Your task to perform on an android device: Check the news Image 0: 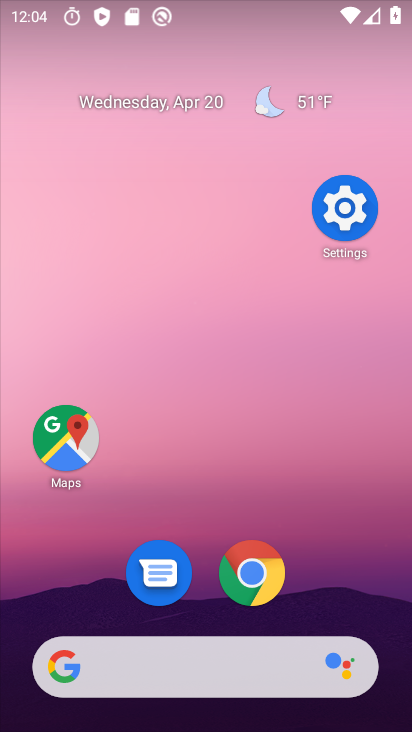
Step 0: click (259, 570)
Your task to perform on an android device: Check the news Image 1: 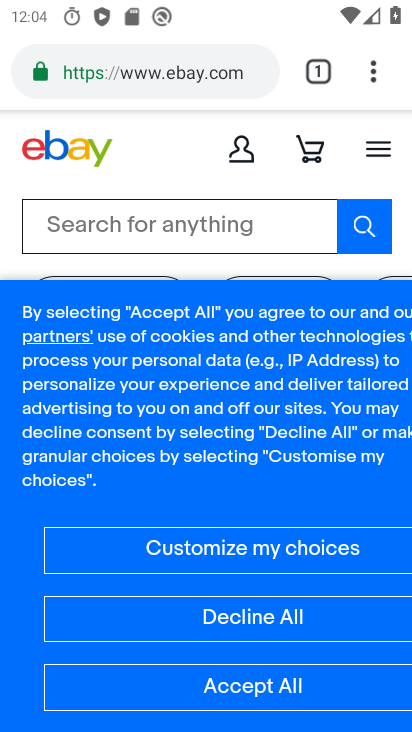
Step 1: click (203, 74)
Your task to perform on an android device: Check the news Image 2: 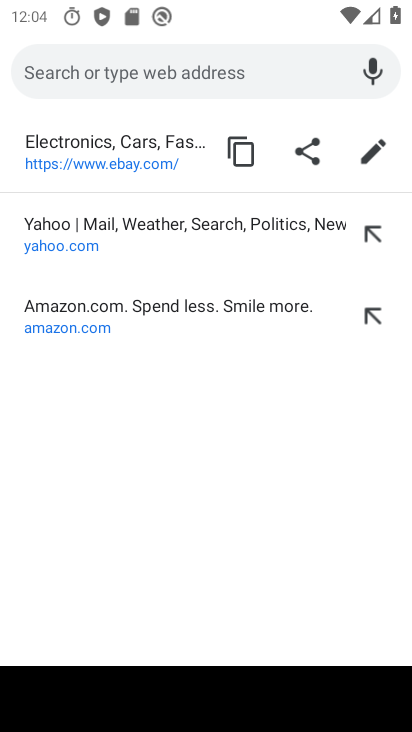
Step 2: type "news"
Your task to perform on an android device: Check the news Image 3: 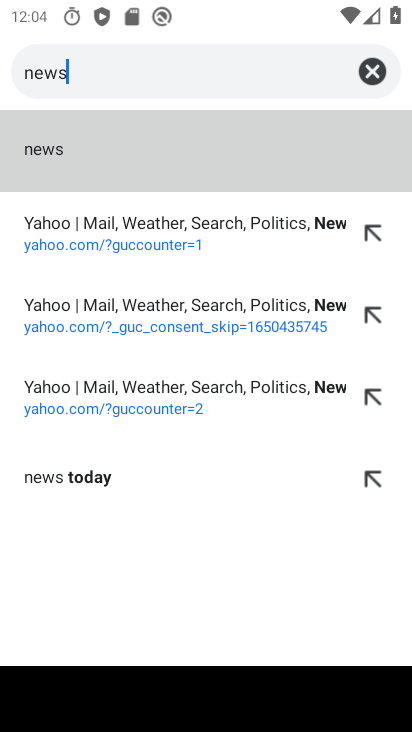
Step 3: click (67, 151)
Your task to perform on an android device: Check the news Image 4: 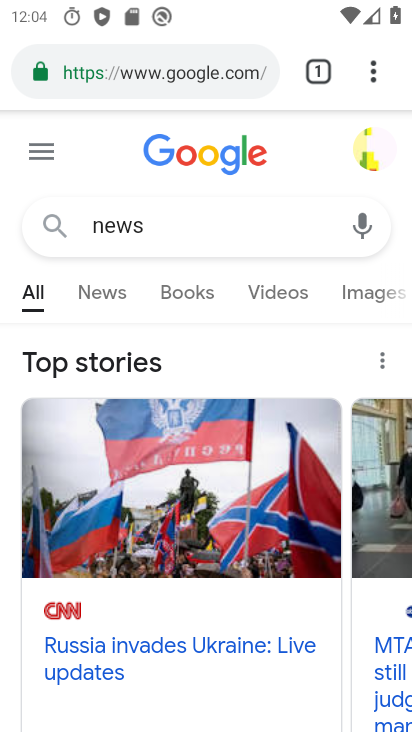
Step 4: task complete